Your task to perform on an android device: see sites visited before in the chrome app Image 0: 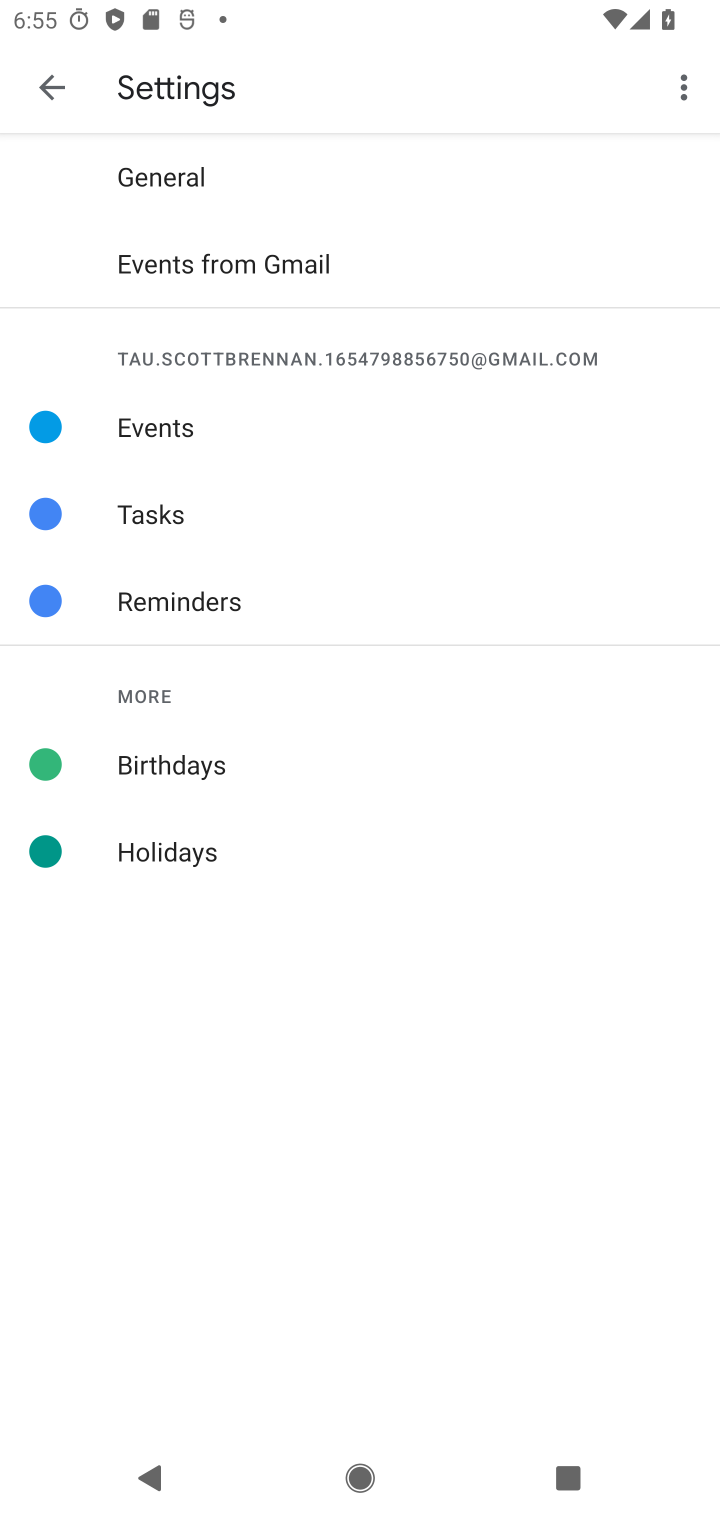
Step 0: press home button
Your task to perform on an android device: see sites visited before in the chrome app Image 1: 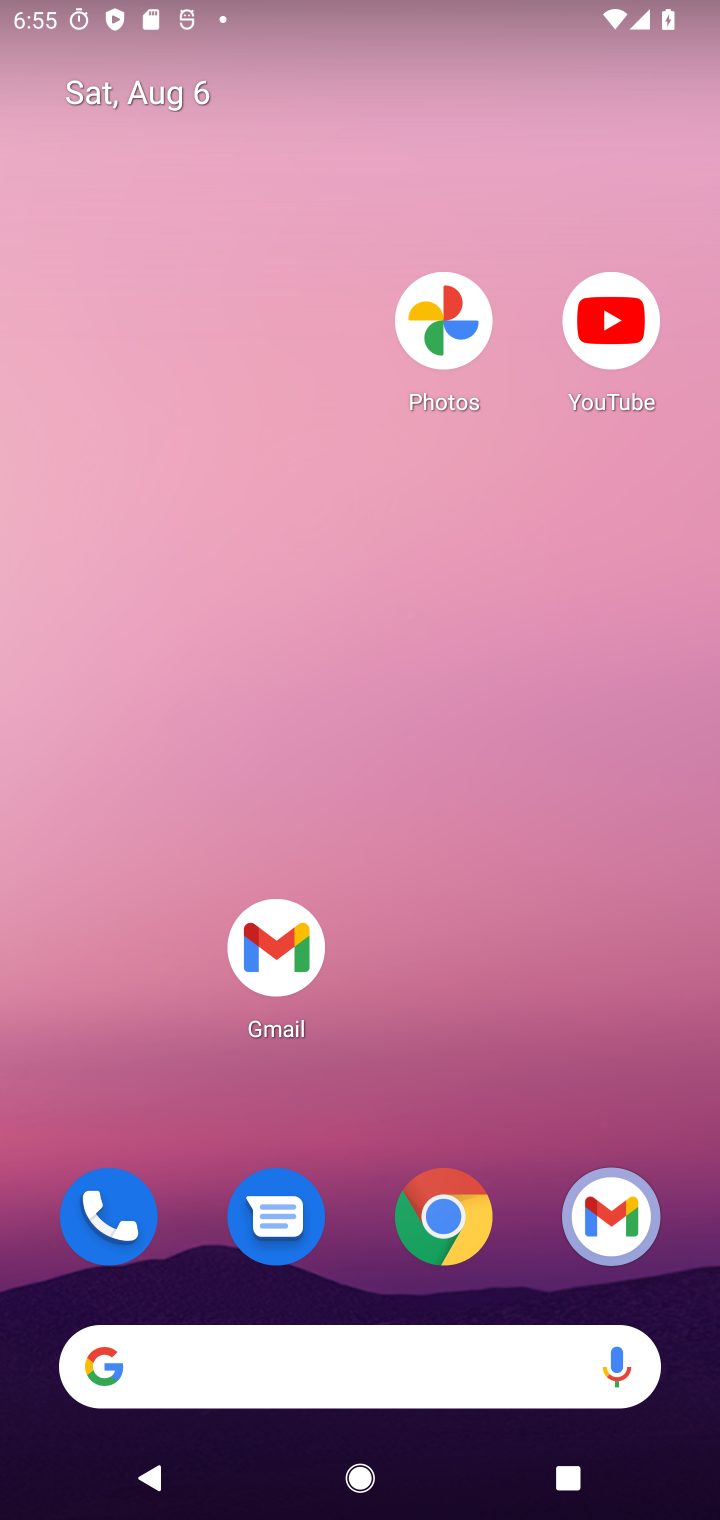
Step 1: drag from (508, 1099) to (474, 341)
Your task to perform on an android device: see sites visited before in the chrome app Image 2: 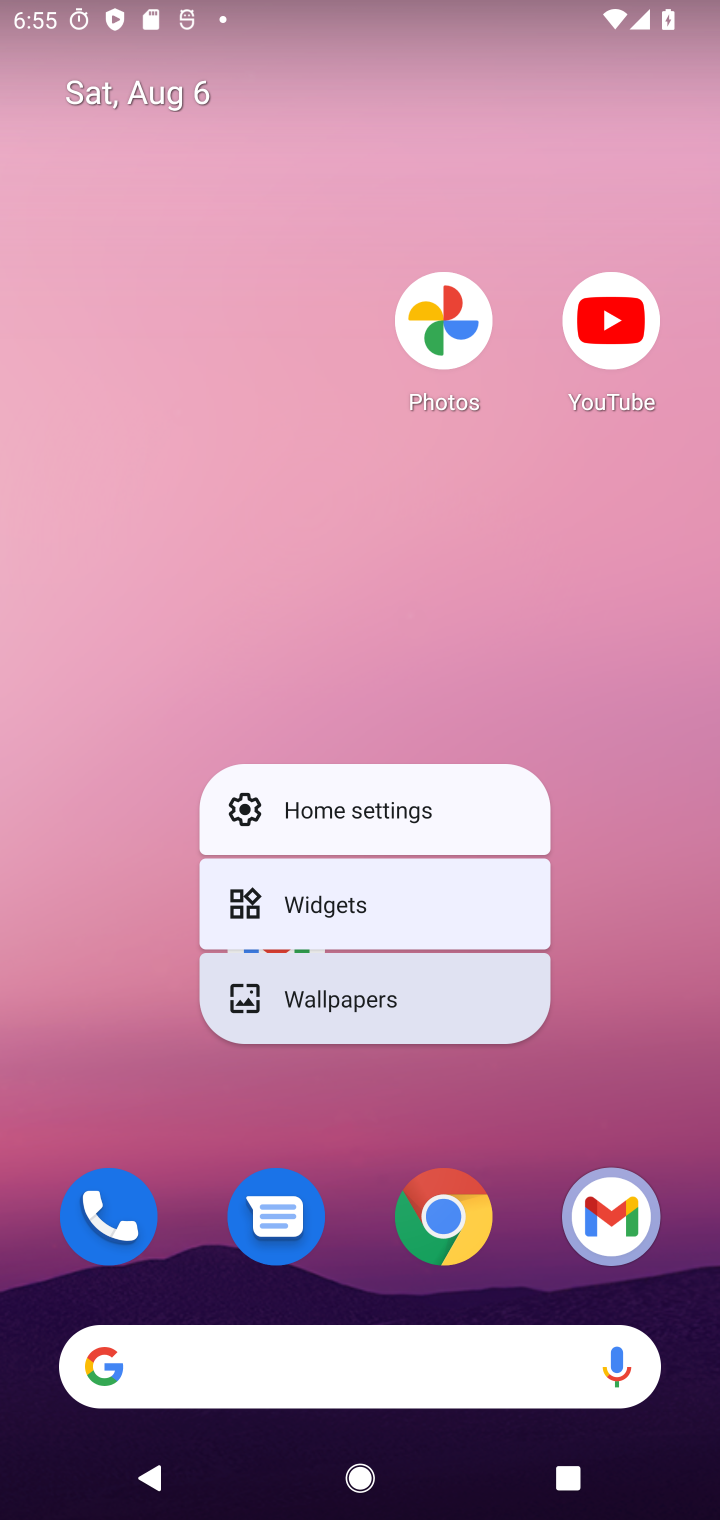
Step 2: click (552, 709)
Your task to perform on an android device: see sites visited before in the chrome app Image 3: 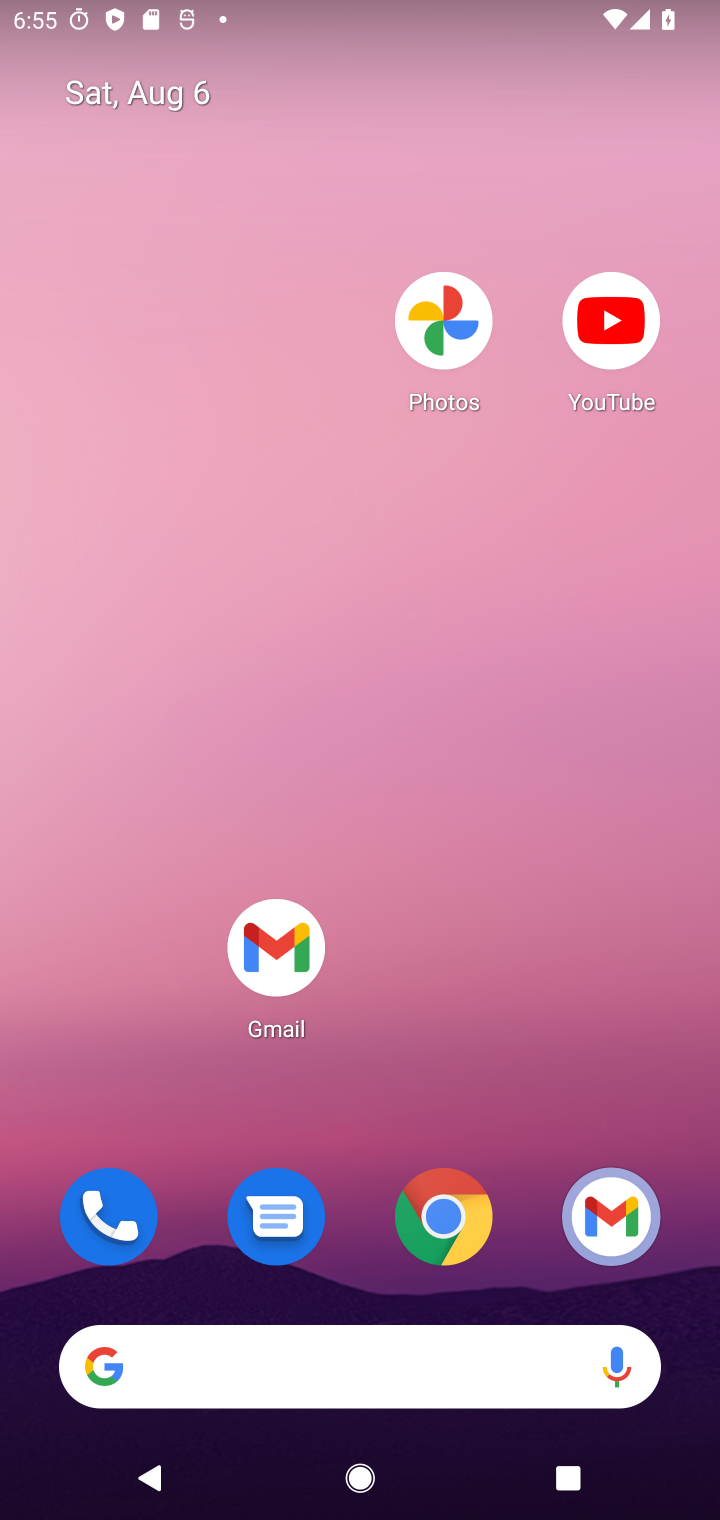
Step 3: drag from (478, 1052) to (478, 753)
Your task to perform on an android device: see sites visited before in the chrome app Image 4: 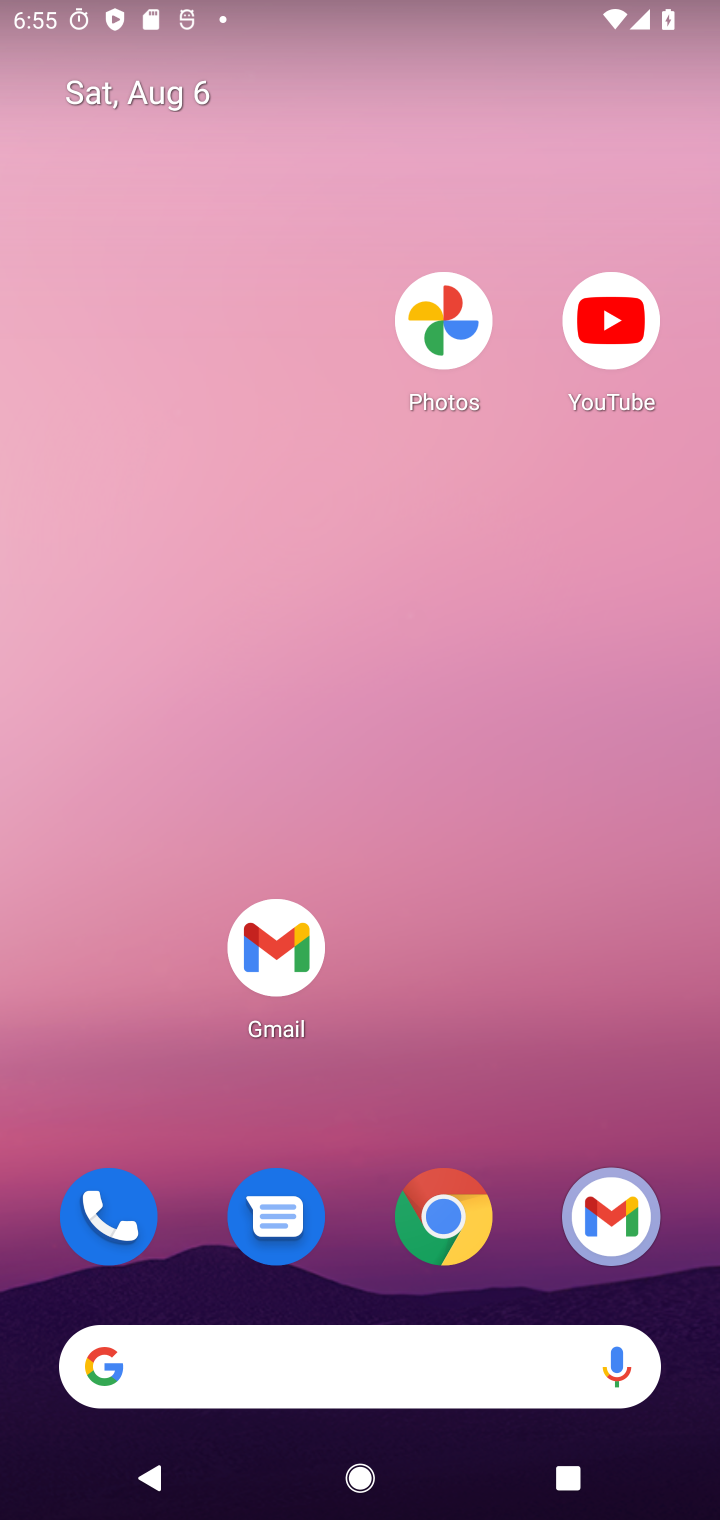
Step 4: drag from (432, 917) to (489, 585)
Your task to perform on an android device: see sites visited before in the chrome app Image 5: 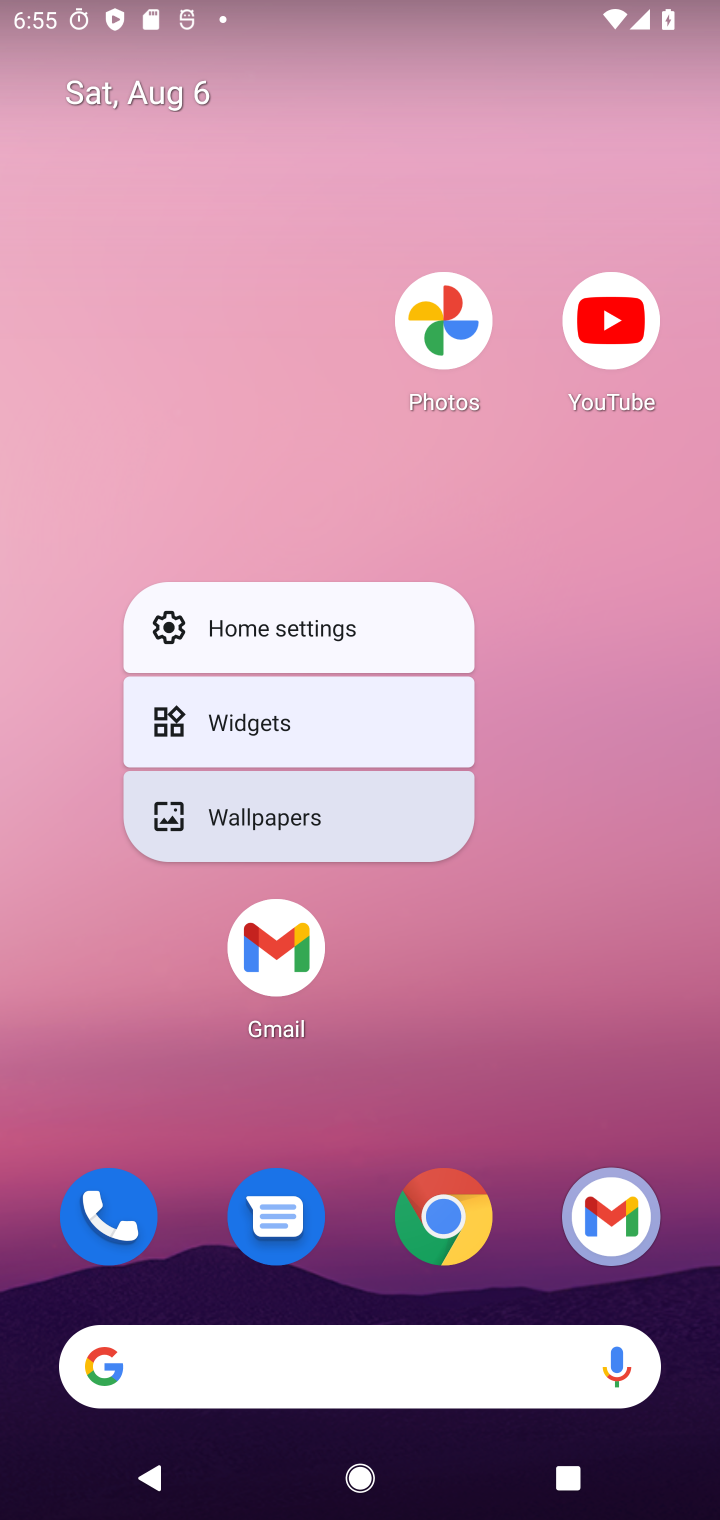
Step 5: click (530, 830)
Your task to perform on an android device: see sites visited before in the chrome app Image 6: 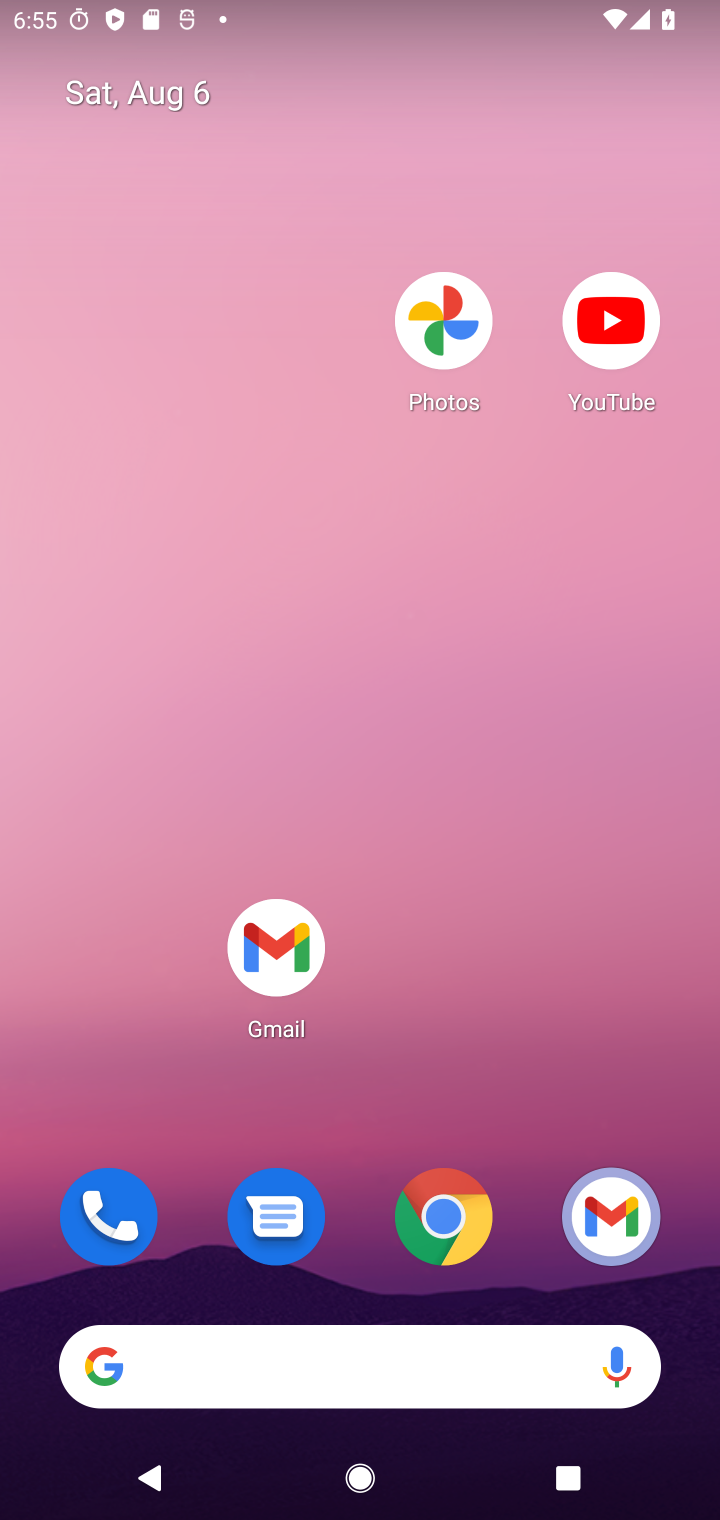
Step 6: drag from (469, 1062) to (627, 515)
Your task to perform on an android device: see sites visited before in the chrome app Image 7: 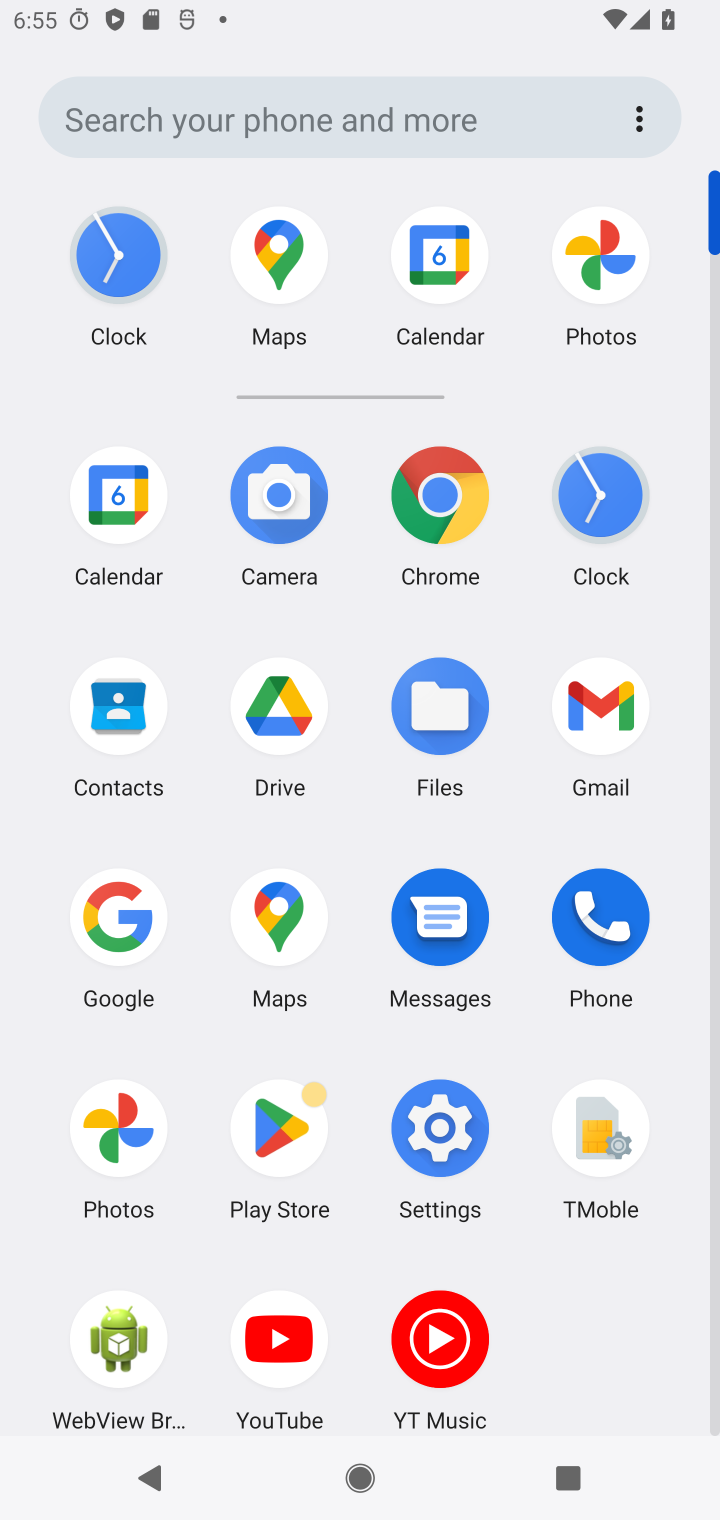
Step 7: click (430, 486)
Your task to perform on an android device: see sites visited before in the chrome app Image 8: 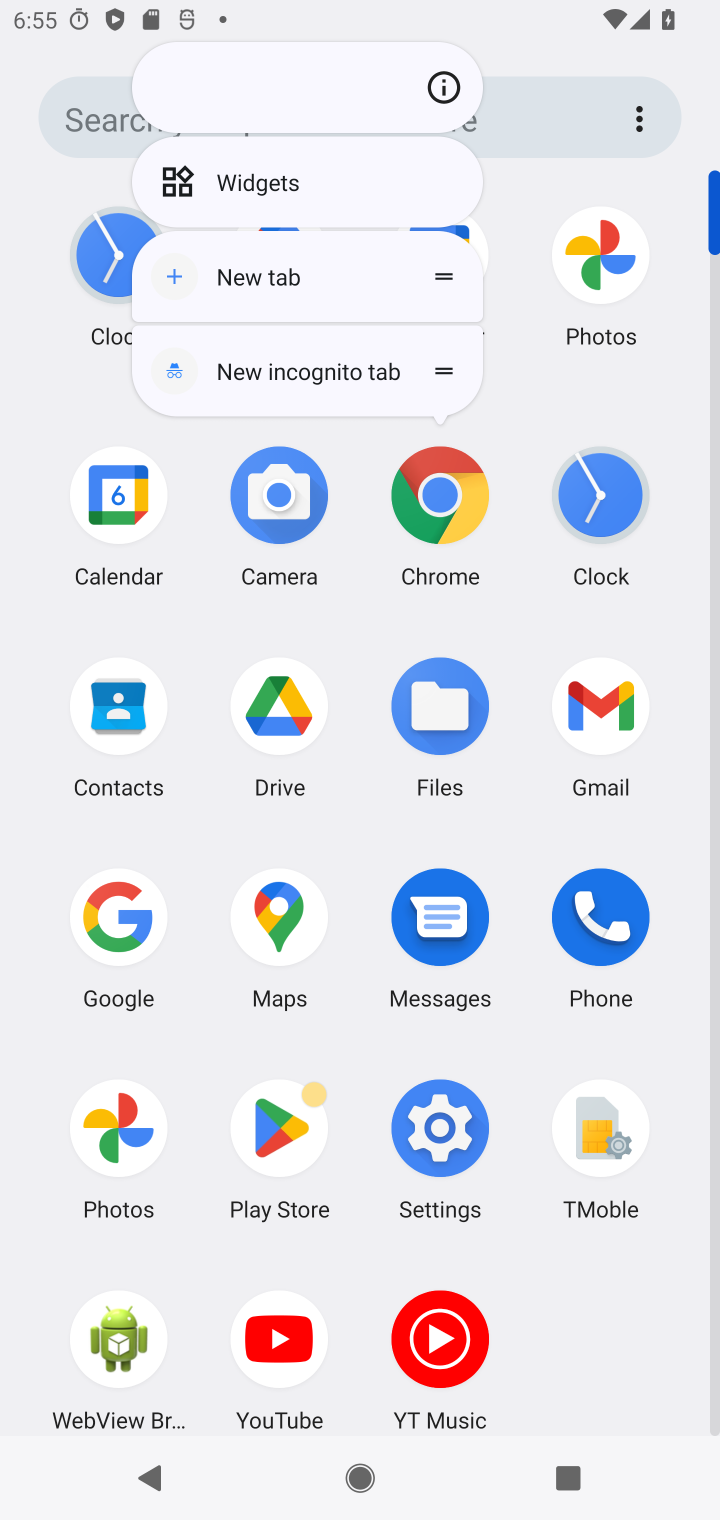
Step 8: click (441, 492)
Your task to perform on an android device: see sites visited before in the chrome app Image 9: 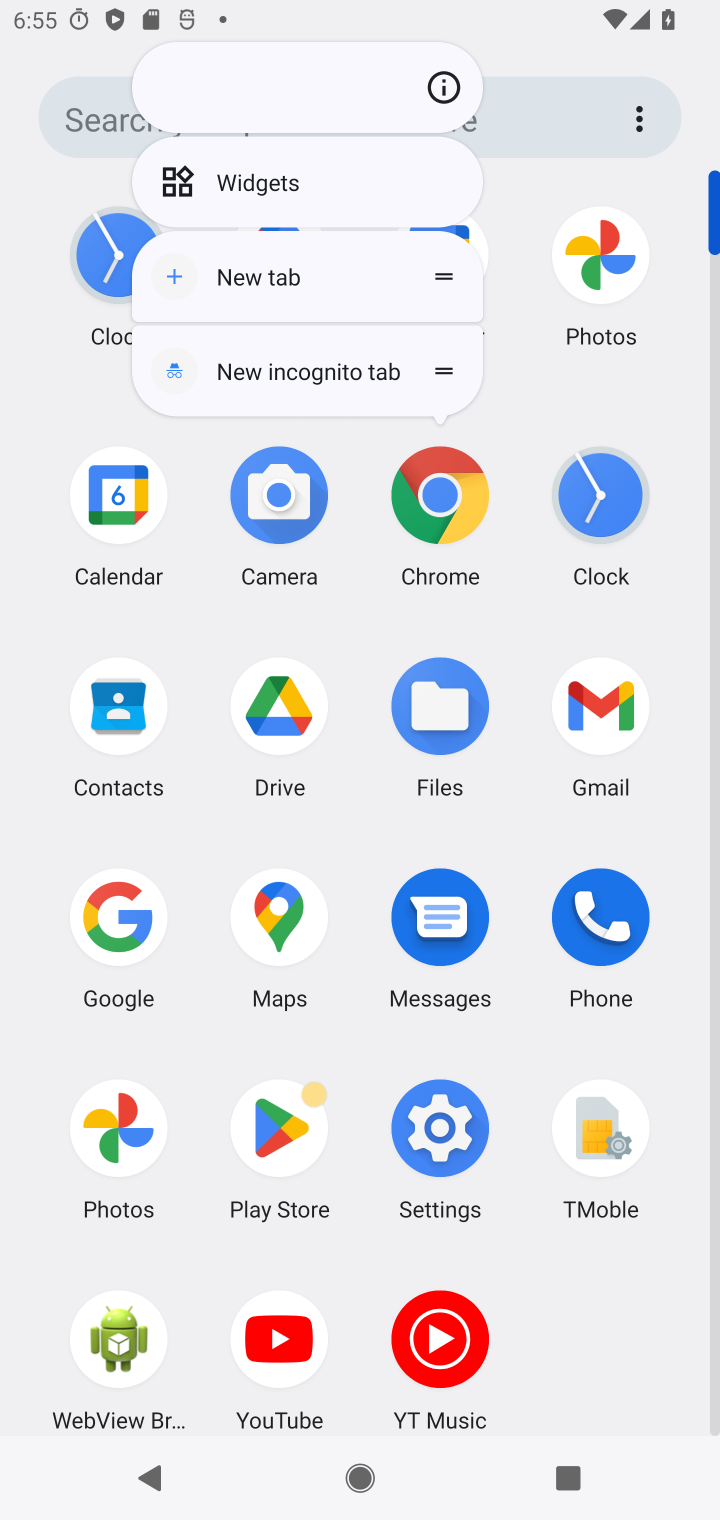
Step 9: click (441, 492)
Your task to perform on an android device: see sites visited before in the chrome app Image 10: 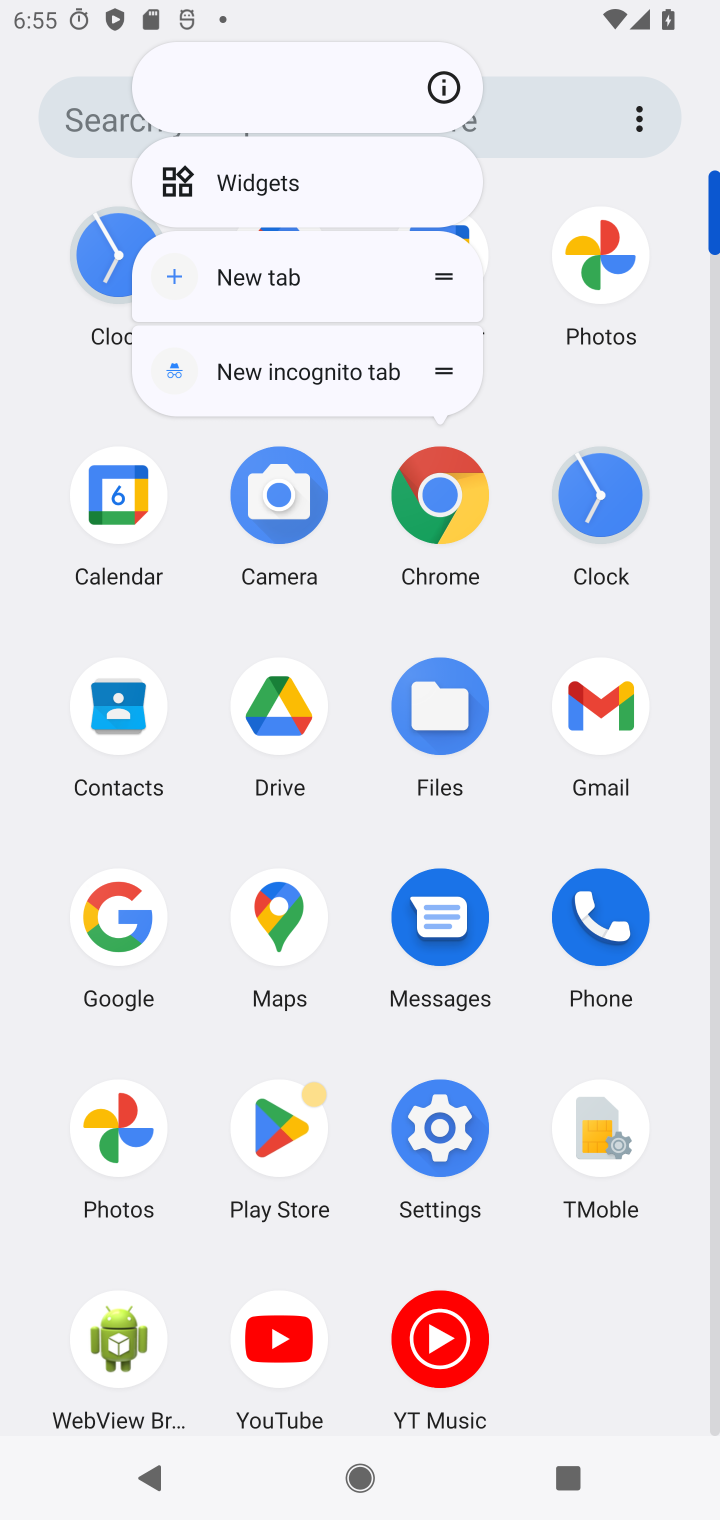
Step 10: click (509, 597)
Your task to perform on an android device: see sites visited before in the chrome app Image 11: 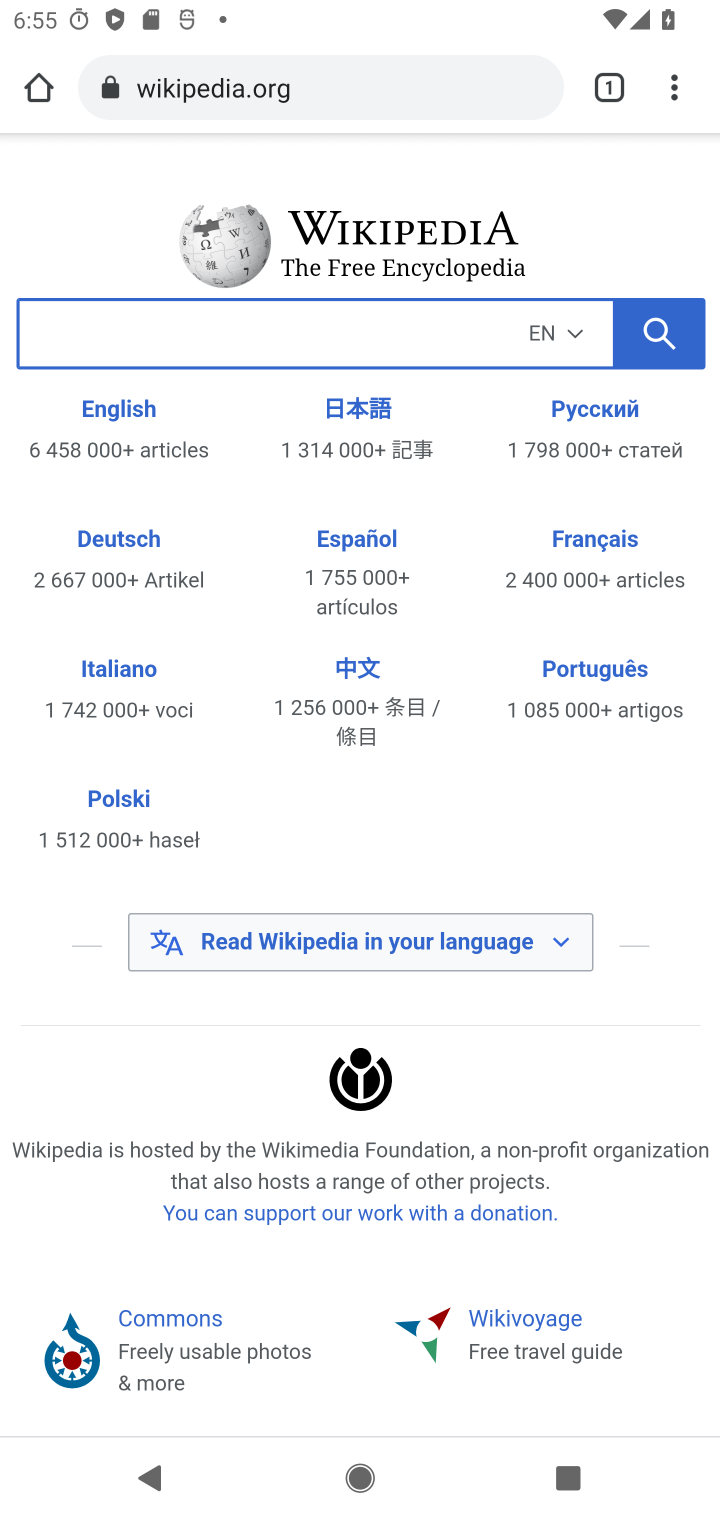
Step 11: drag from (695, 75) to (435, 1185)
Your task to perform on an android device: see sites visited before in the chrome app Image 12: 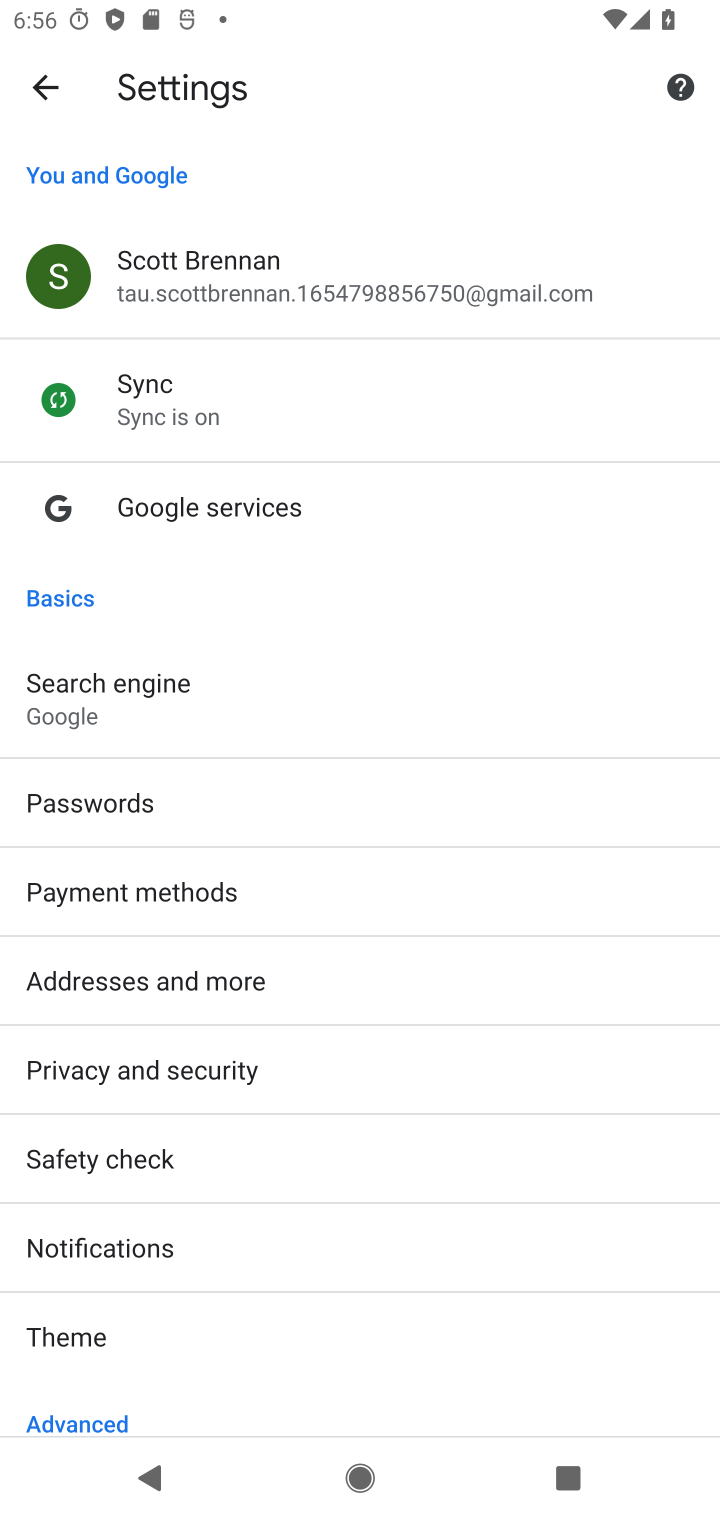
Step 12: drag from (267, 1247) to (383, 532)
Your task to perform on an android device: see sites visited before in the chrome app Image 13: 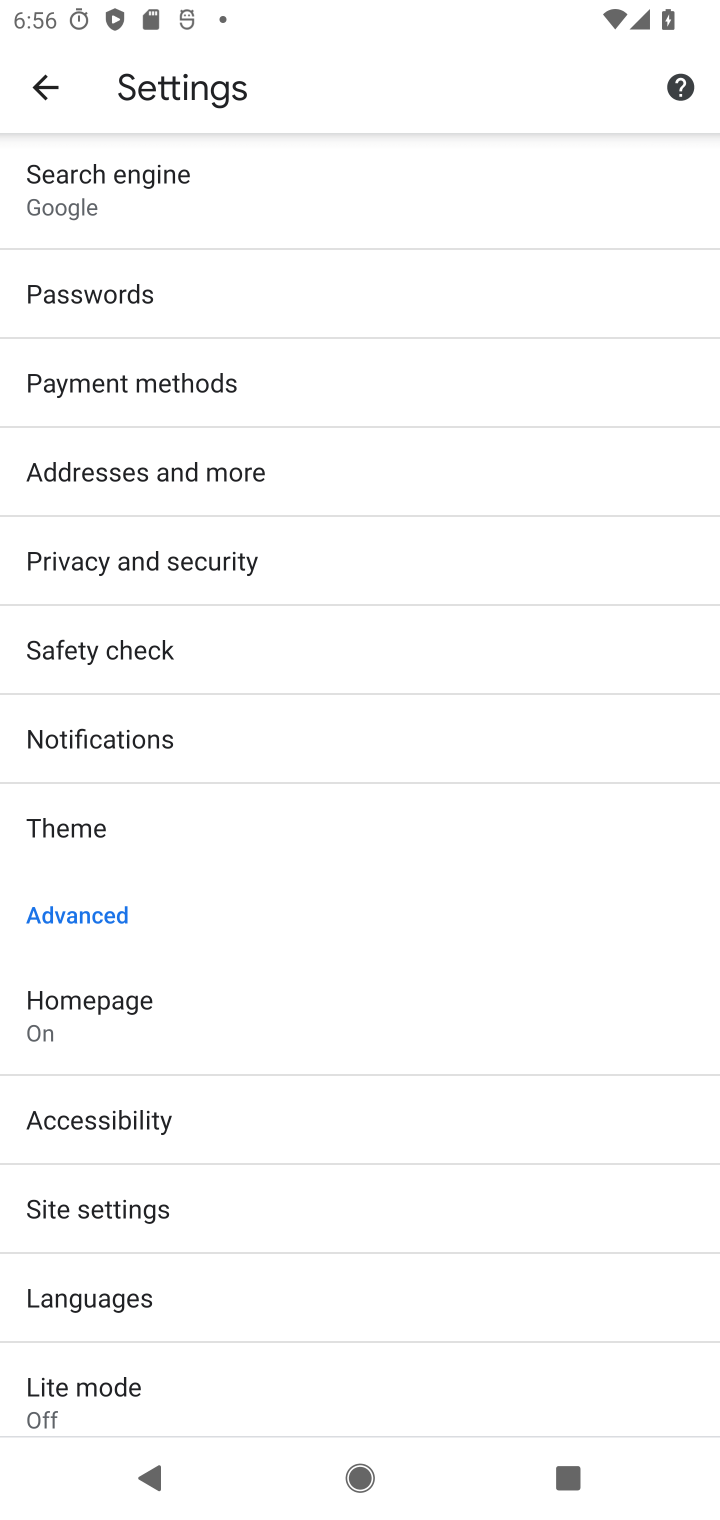
Step 13: click (120, 1303)
Your task to perform on an android device: see sites visited before in the chrome app Image 14: 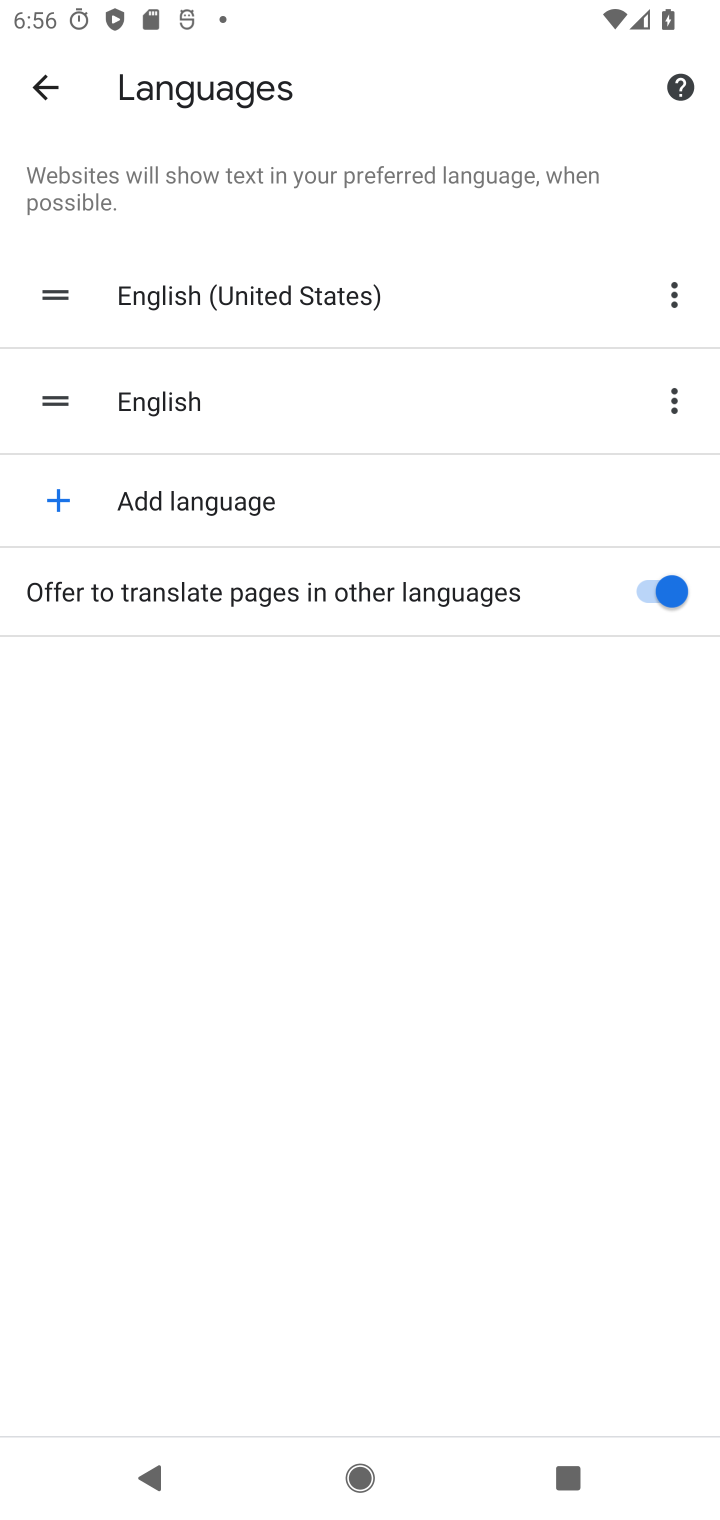
Step 14: press home button
Your task to perform on an android device: see sites visited before in the chrome app Image 15: 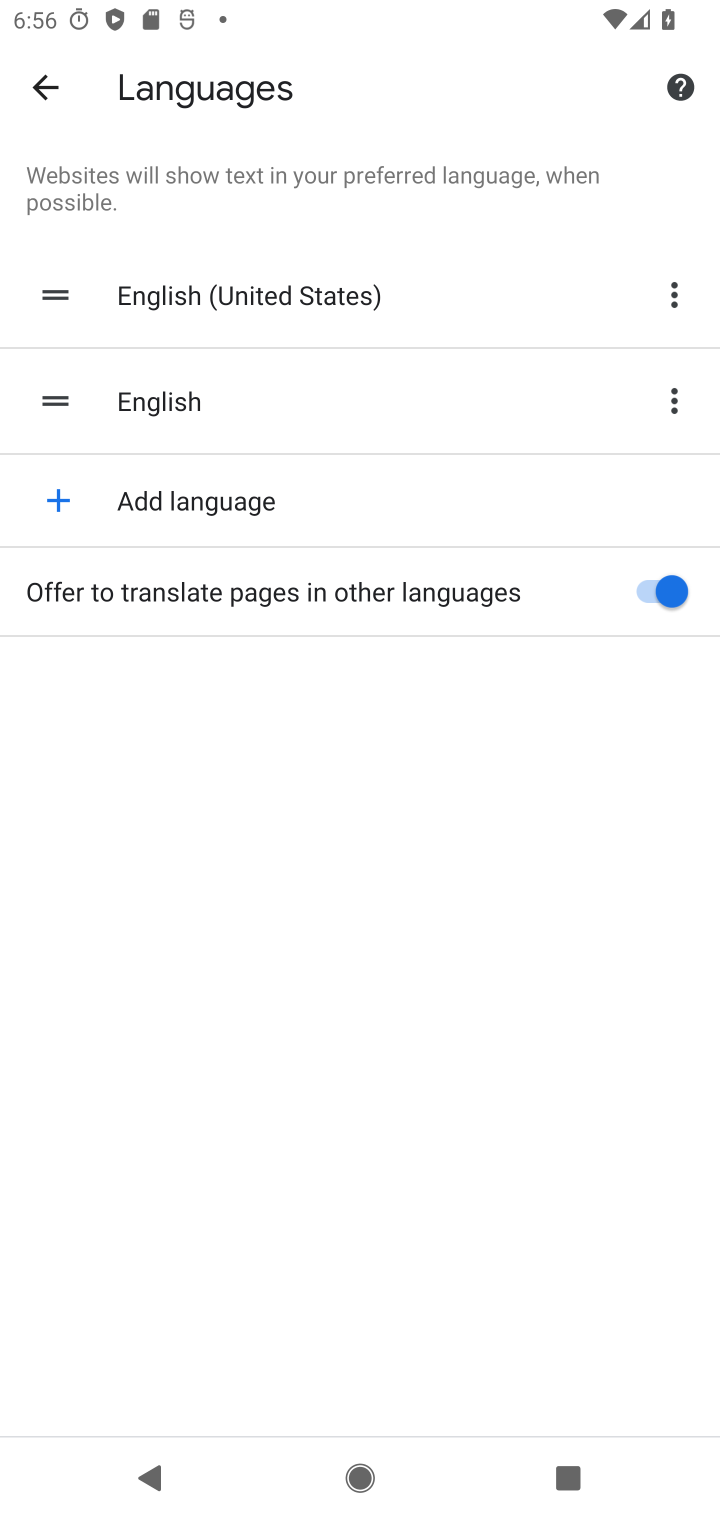
Step 15: press home button
Your task to perform on an android device: see sites visited before in the chrome app Image 16: 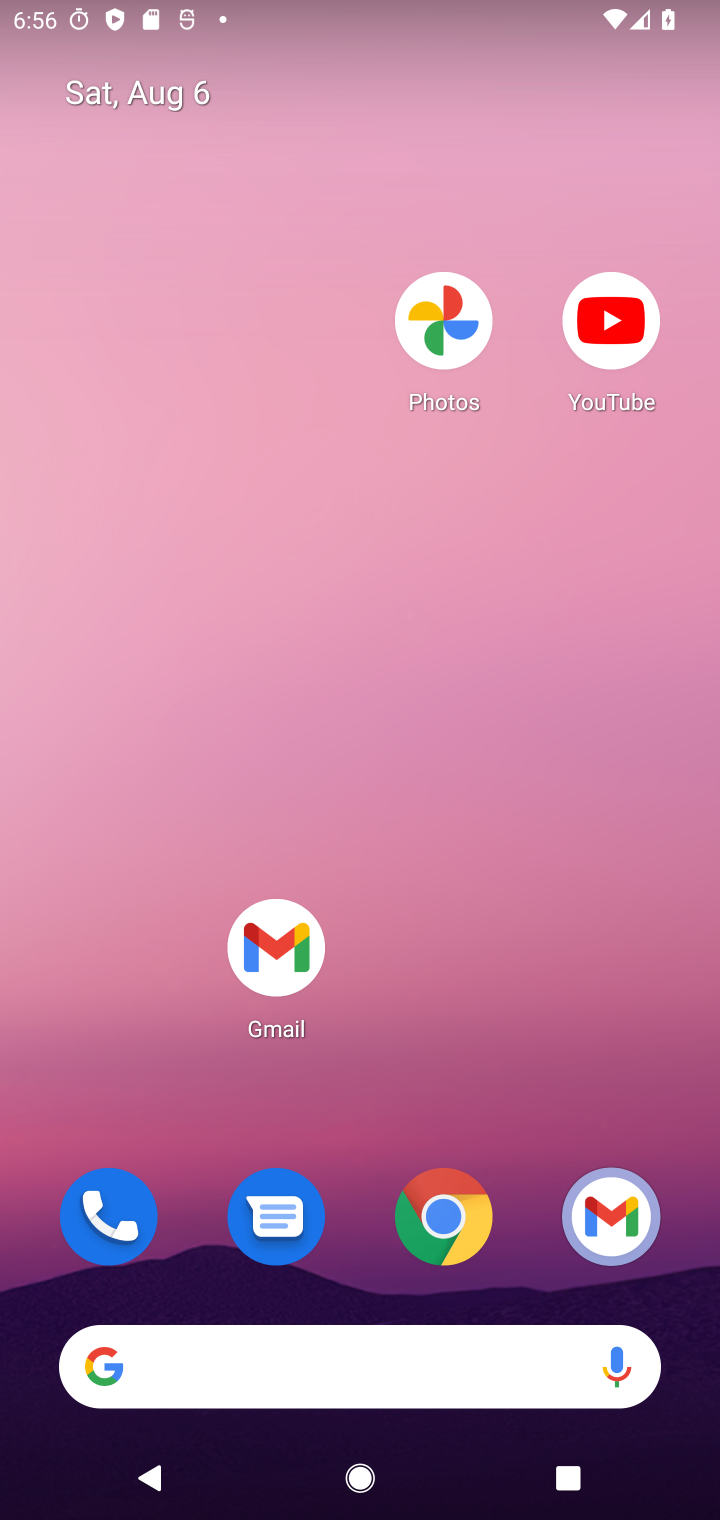
Step 16: drag from (423, 1062) to (494, 308)
Your task to perform on an android device: see sites visited before in the chrome app Image 17: 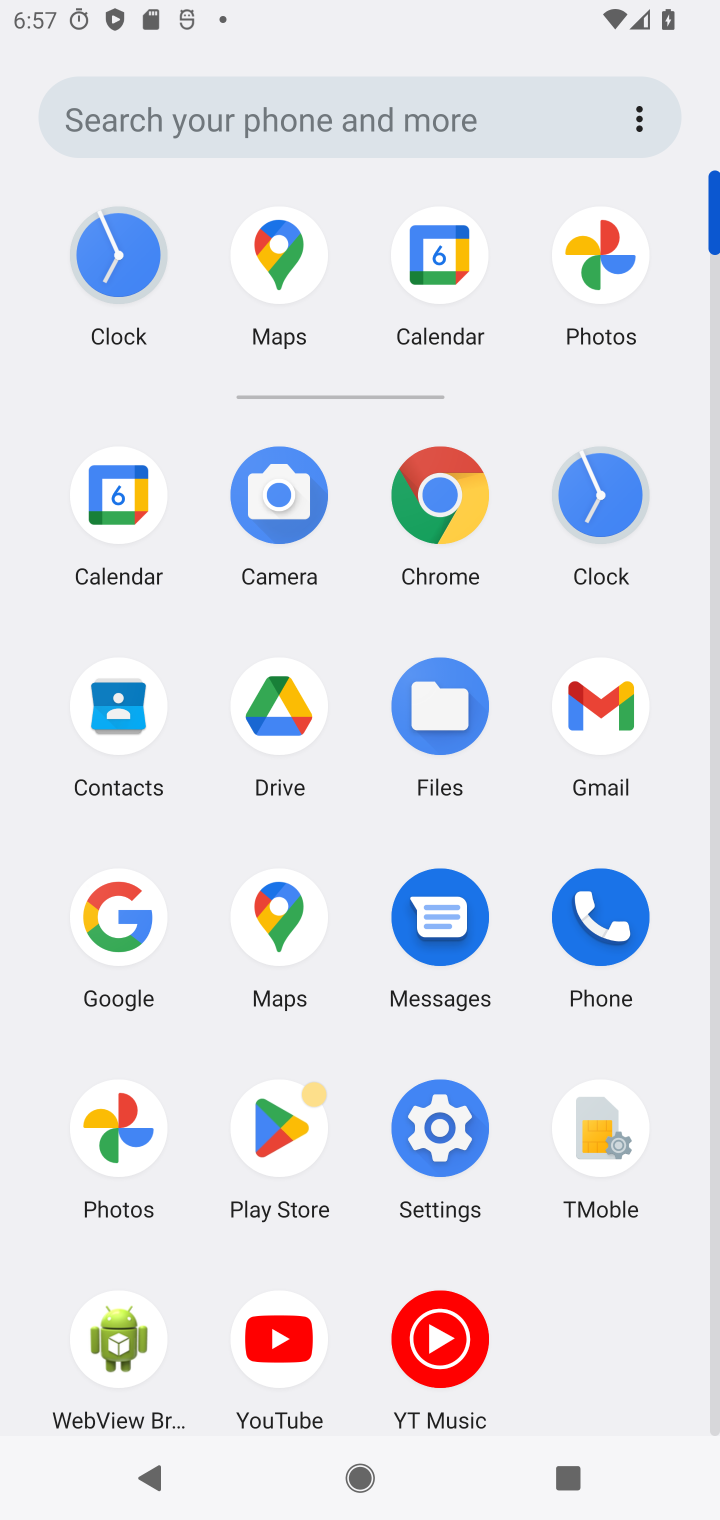
Step 17: click (442, 501)
Your task to perform on an android device: see sites visited before in the chrome app Image 18: 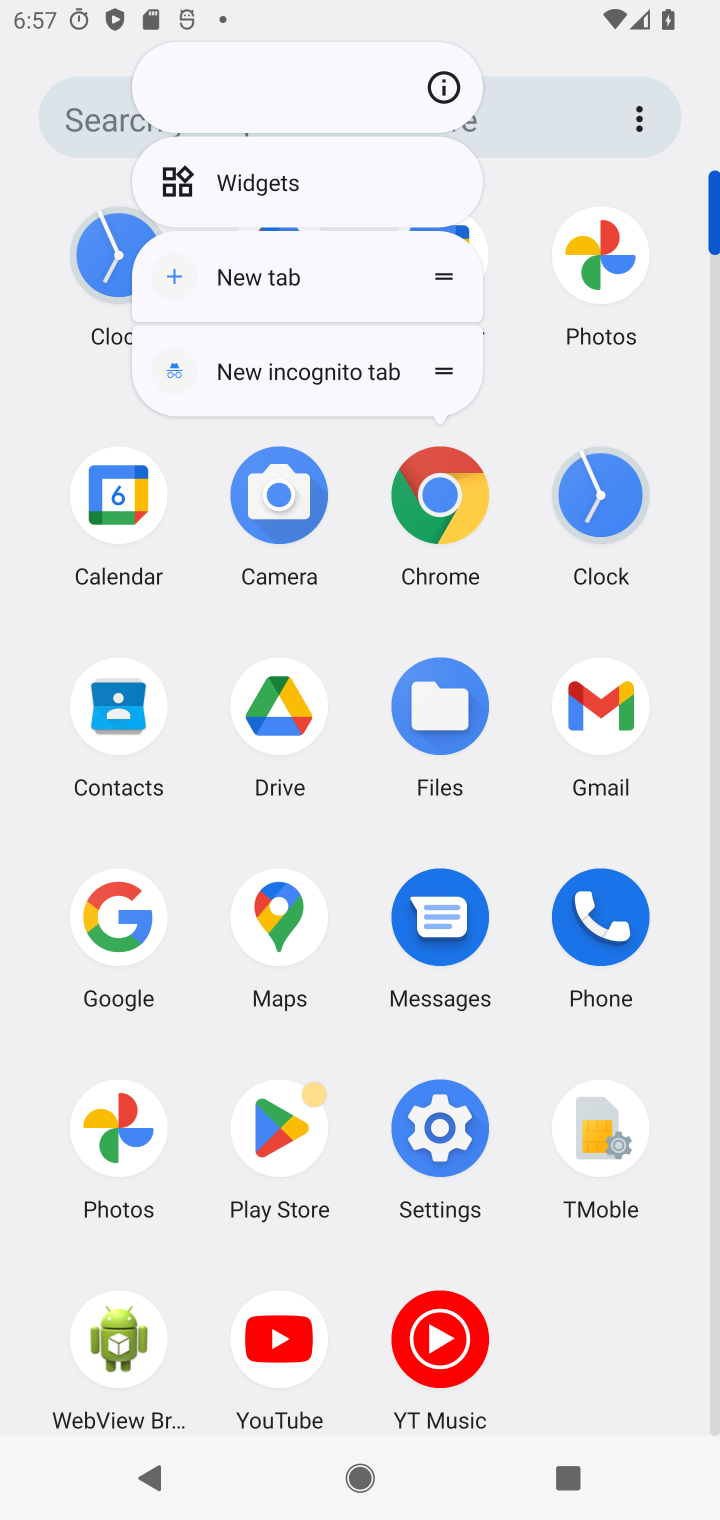
Step 18: click (442, 499)
Your task to perform on an android device: see sites visited before in the chrome app Image 19: 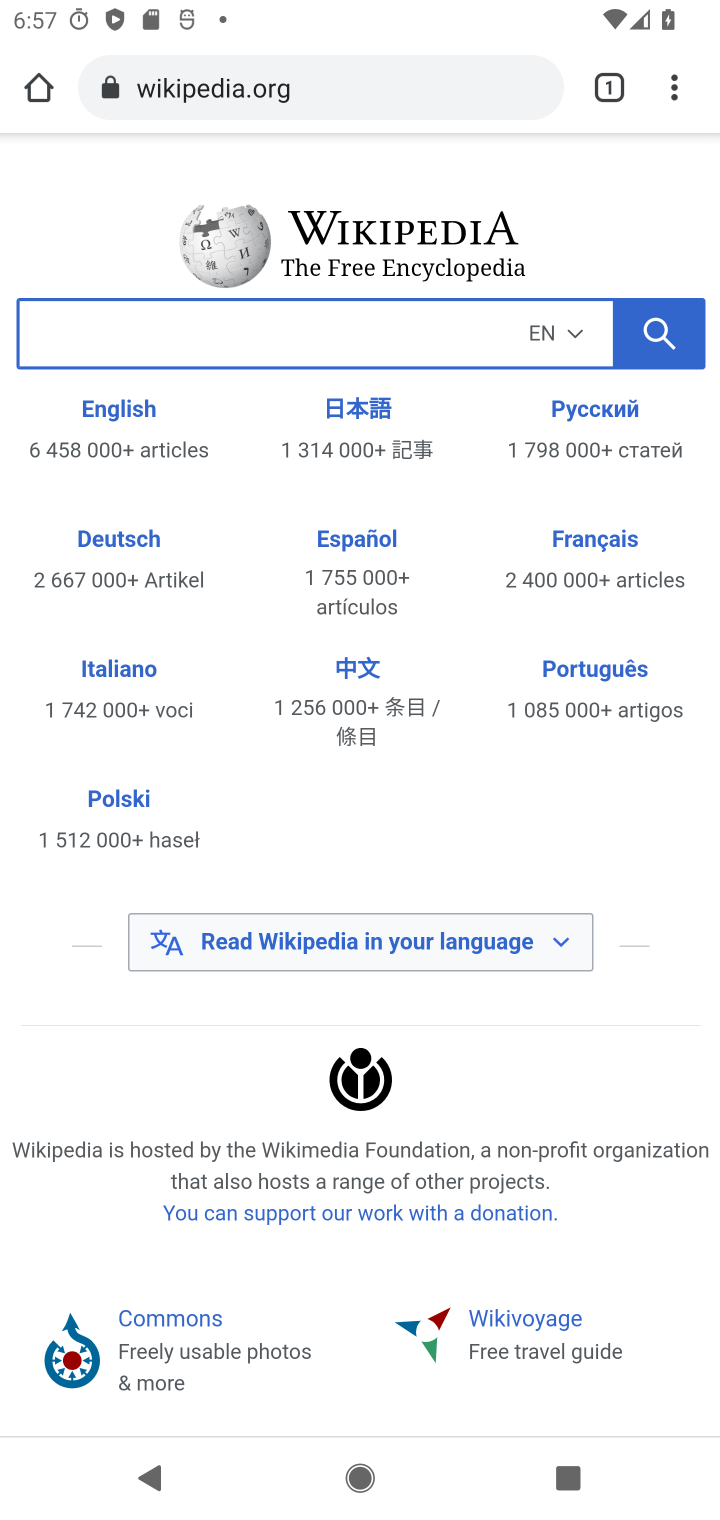
Step 19: task complete